Your task to perform on an android device: Open settings Image 0: 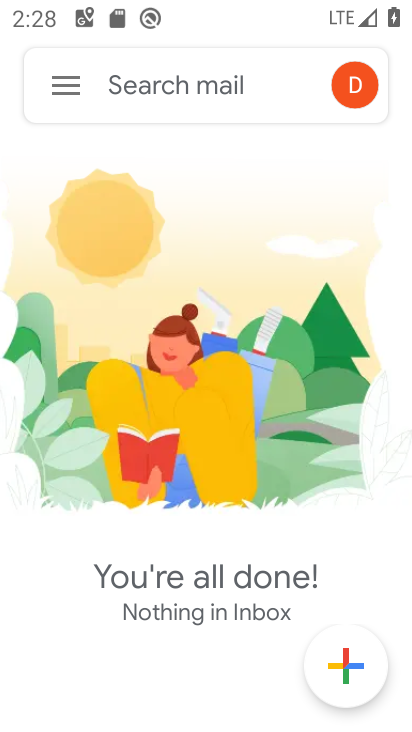
Step 0: press home button
Your task to perform on an android device: Open settings Image 1: 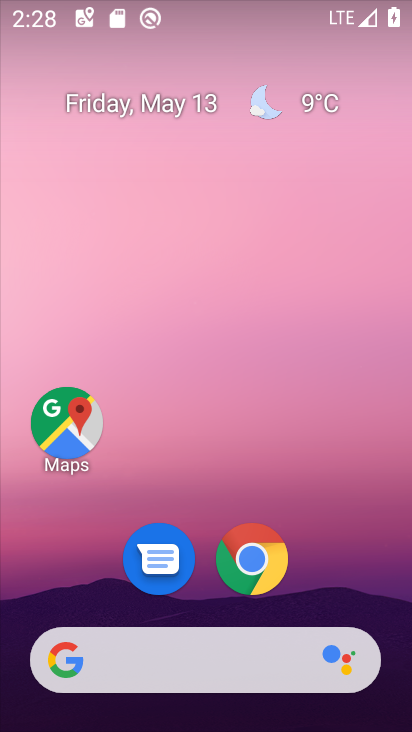
Step 1: drag from (391, 526) to (380, 289)
Your task to perform on an android device: Open settings Image 2: 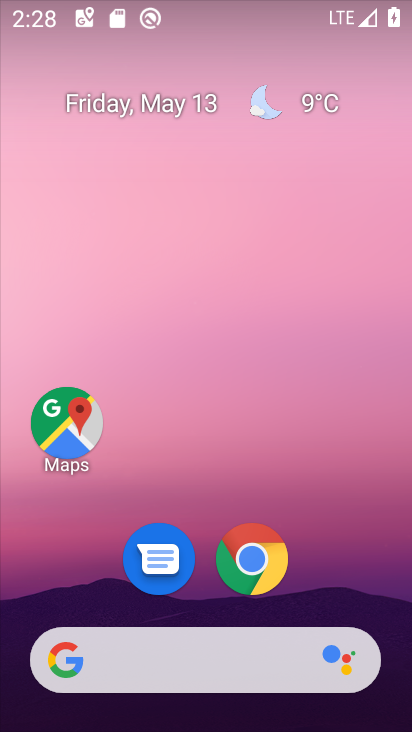
Step 2: click (377, 303)
Your task to perform on an android device: Open settings Image 3: 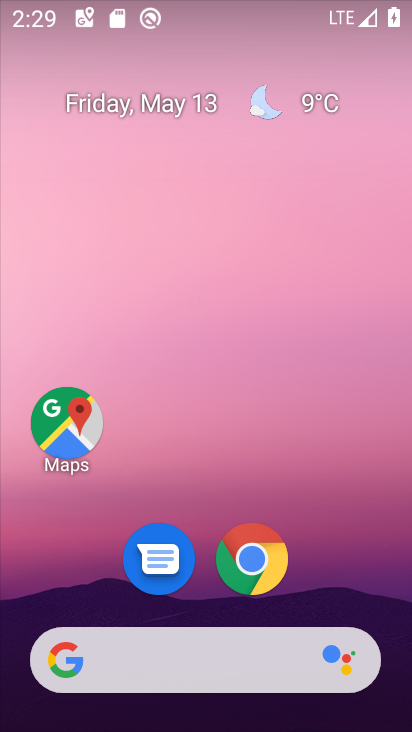
Step 3: drag from (398, 530) to (374, 264)
Your task to perform on an android device: Open settings Image 4: 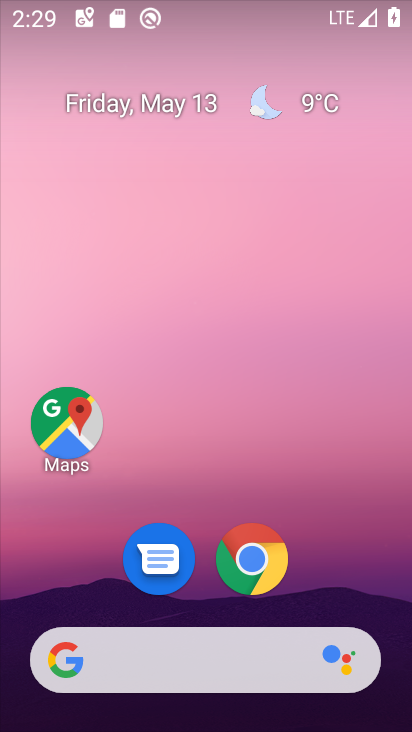
Step 4: drag from (402, 662) to (374, 243)
Your task to perform on an android device: Open settings Image 5: 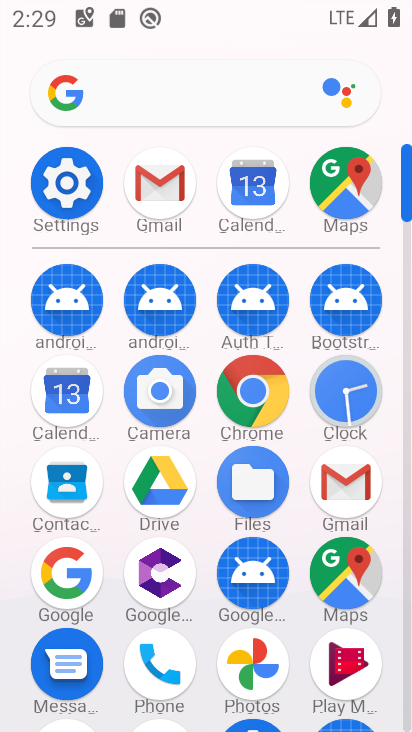
Step 5: drag from (348, 123) to (340, 238)
Your task to perform on an android device: Open settings Image 6: 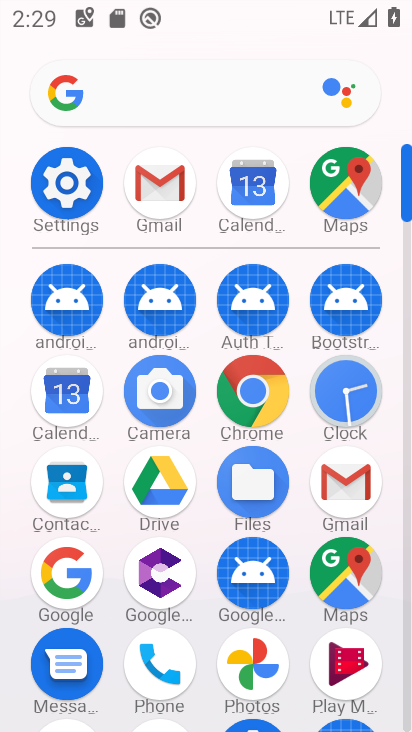
Step 6: click (73, 180)
Your task to perform on an android device: Open settings Image 7: 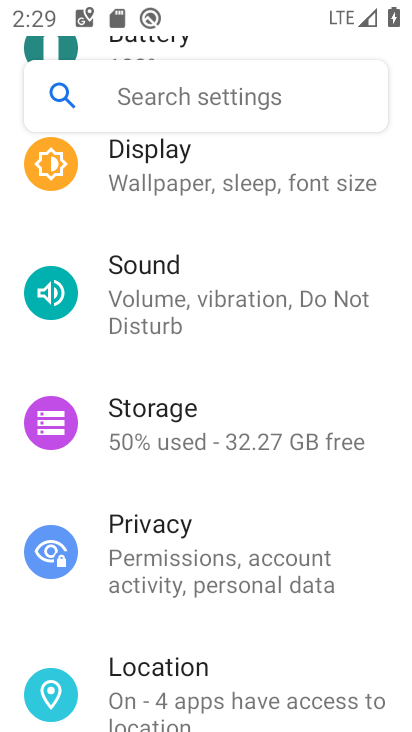
Step 7: task complete